Your task to perform on an android device: Go to eBay Image 0: 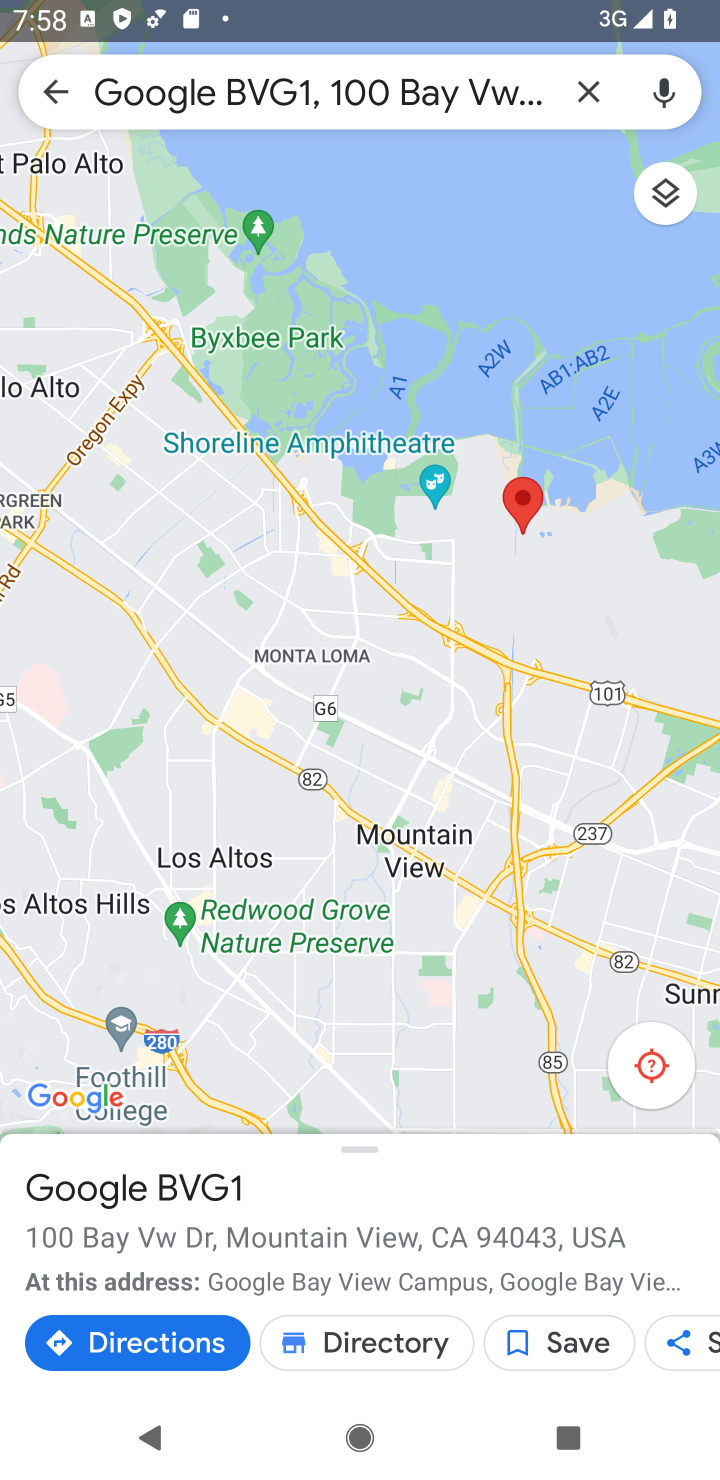
Step 0: press home button
Your task to perform on an android device: Go to eBay Image 1: 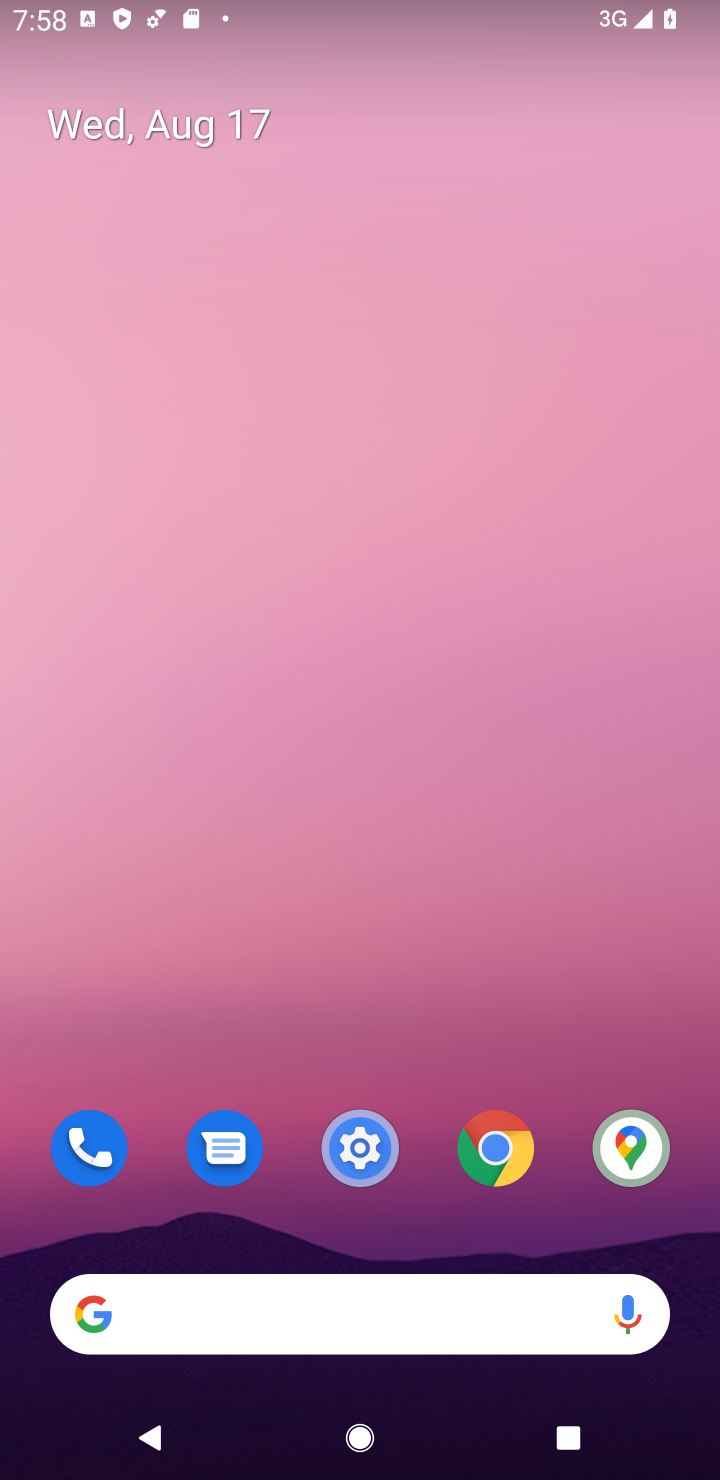
Step 1: click (495, 1150)
Your task to perform on an android device: Go to eBay Image 2: 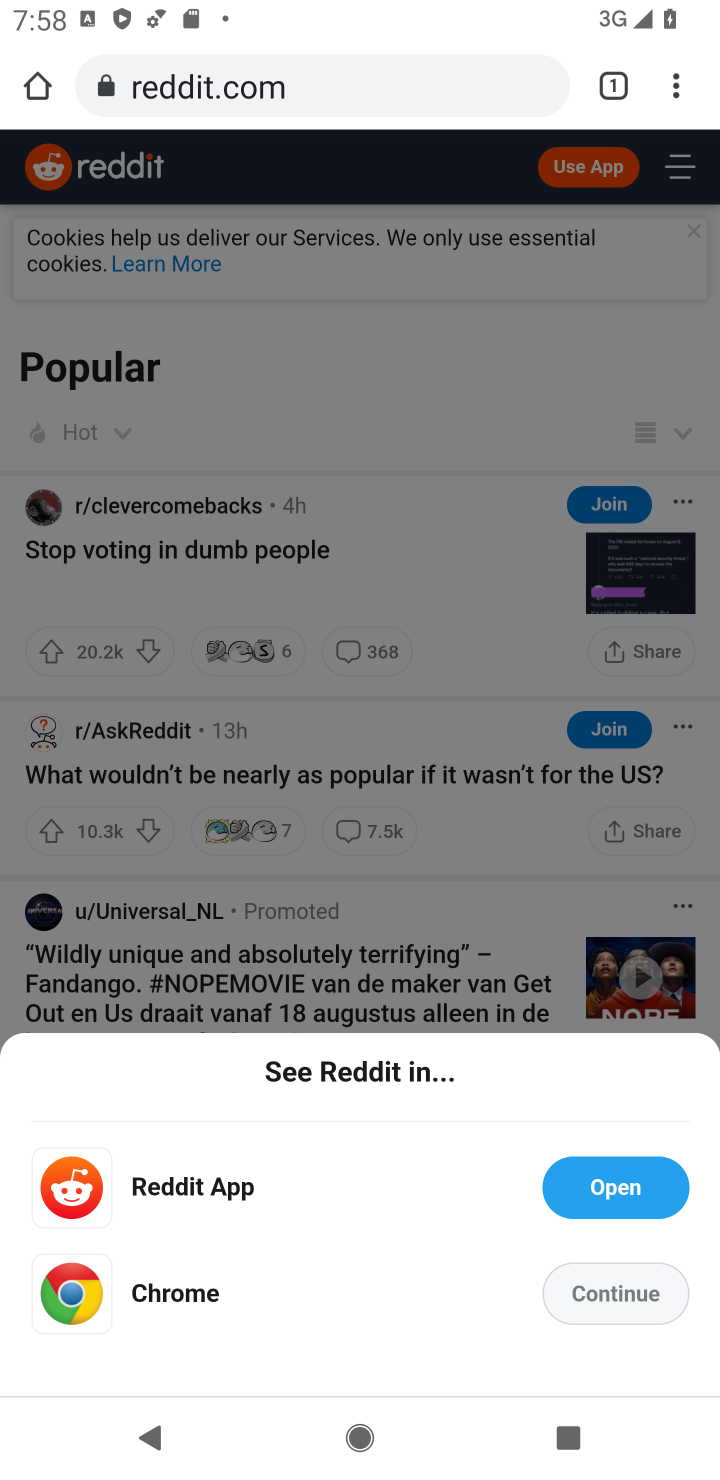
Step 2: click (379, 96)
Your task to perform on an android device: Go to eBay Image 3: 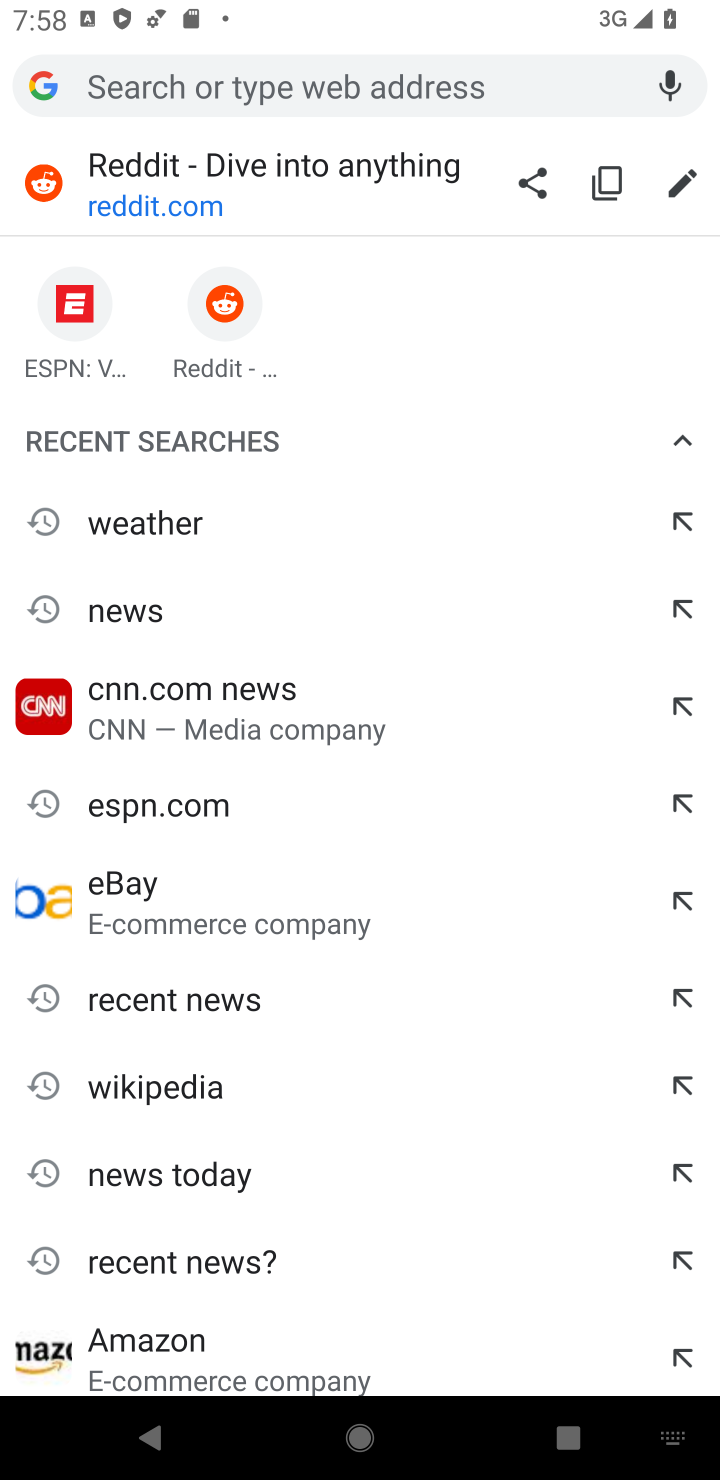
Step 3: type "ebay"
Your task to perform on an android device: Go to eBay Image 4: 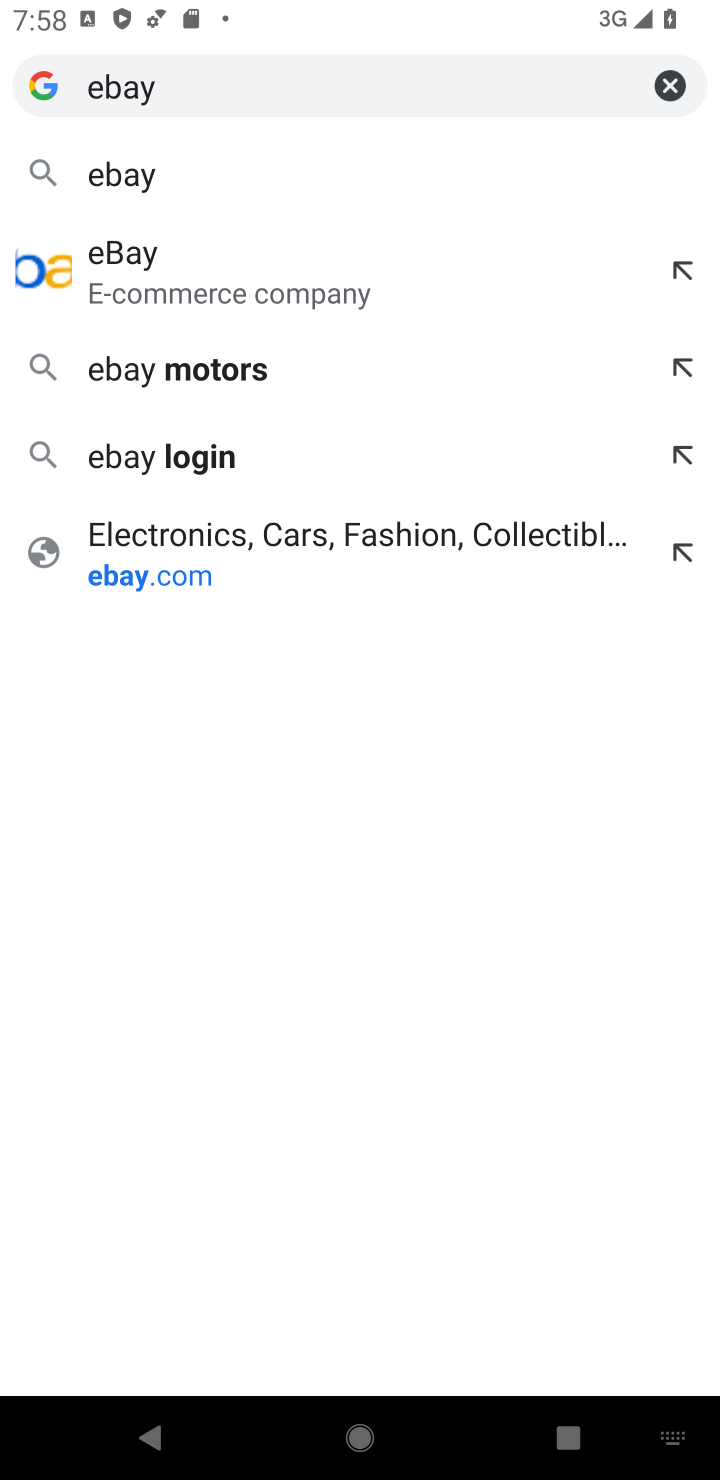
Step 4: click (122, 161)
Your task to perform on an android device: Go to eBay Image 5: 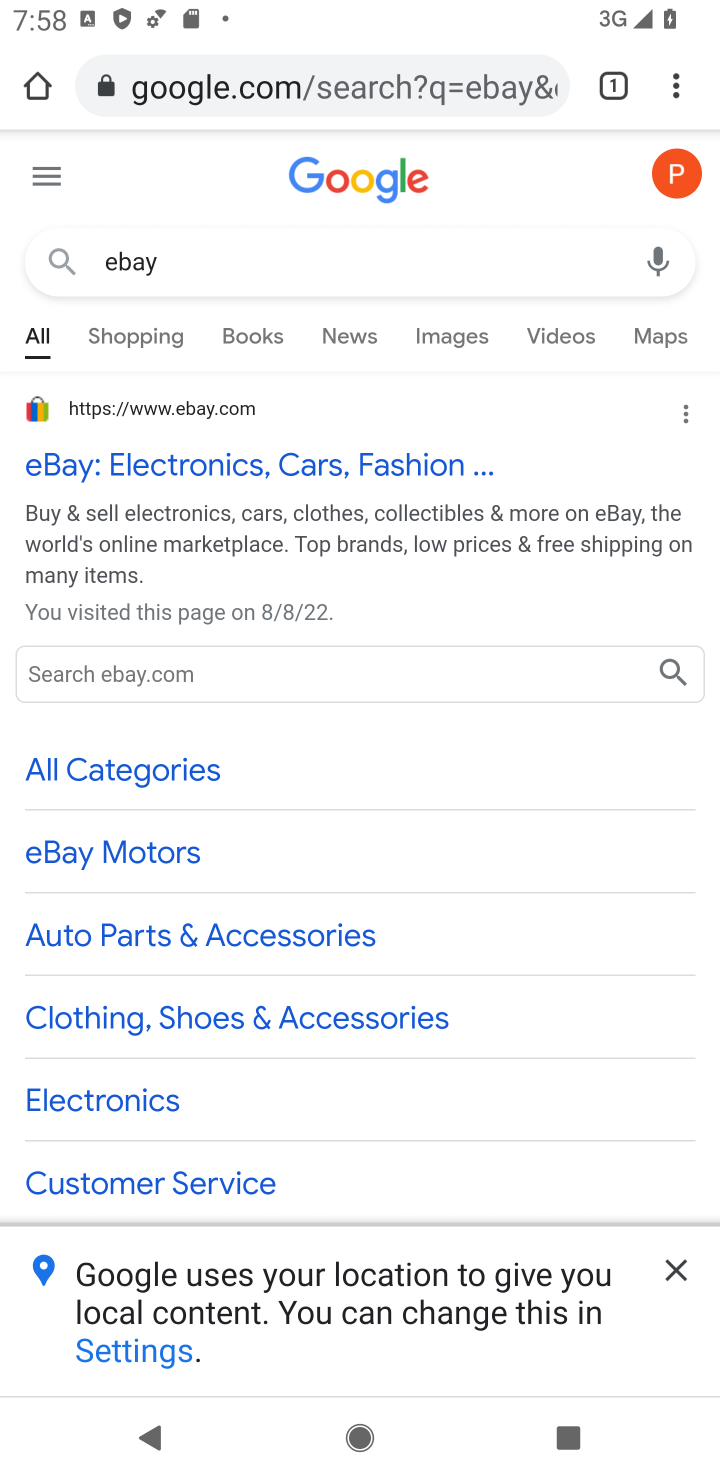
Step 5: click (213, 461)
Your task to perform on an android device: Go to eBay Image 6: 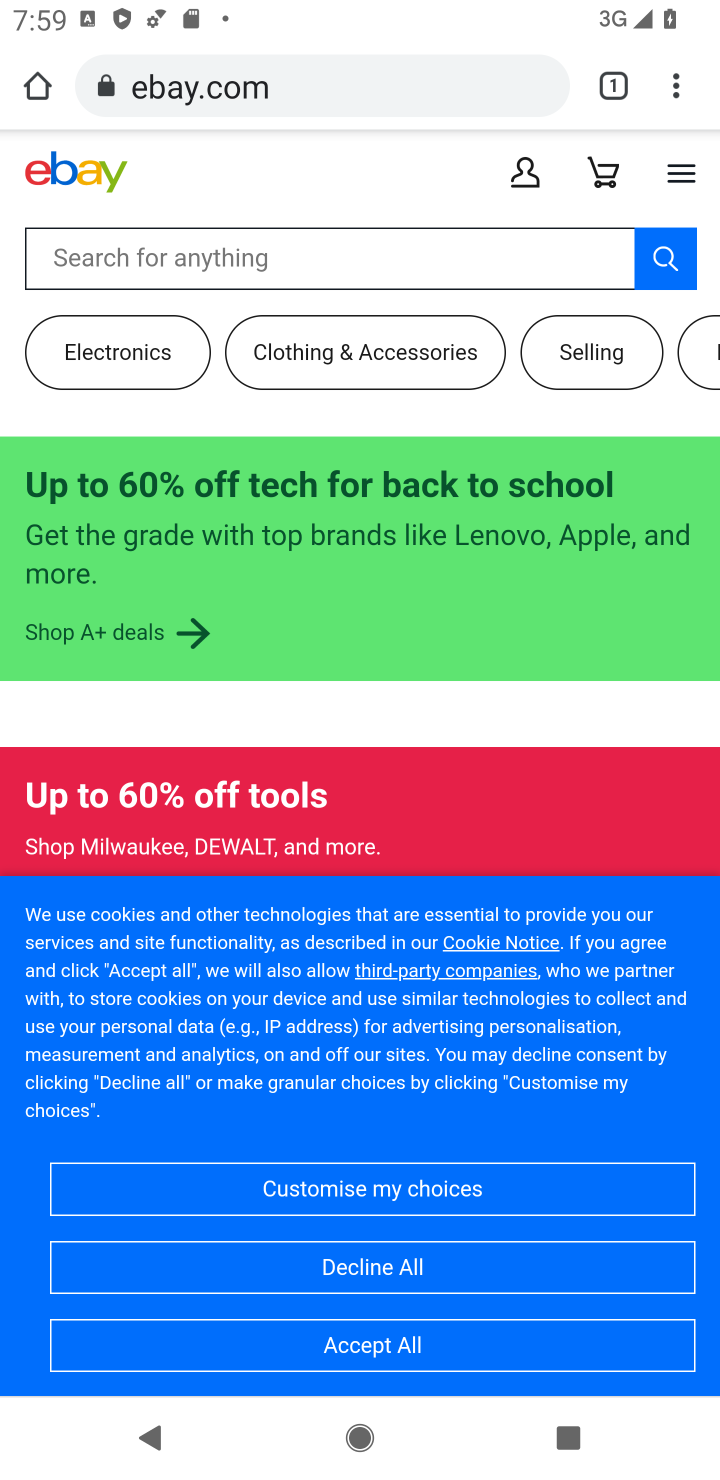
Step 6: click (382, 1349)
Your task to perform on an android device: Go to eBay Image 7: 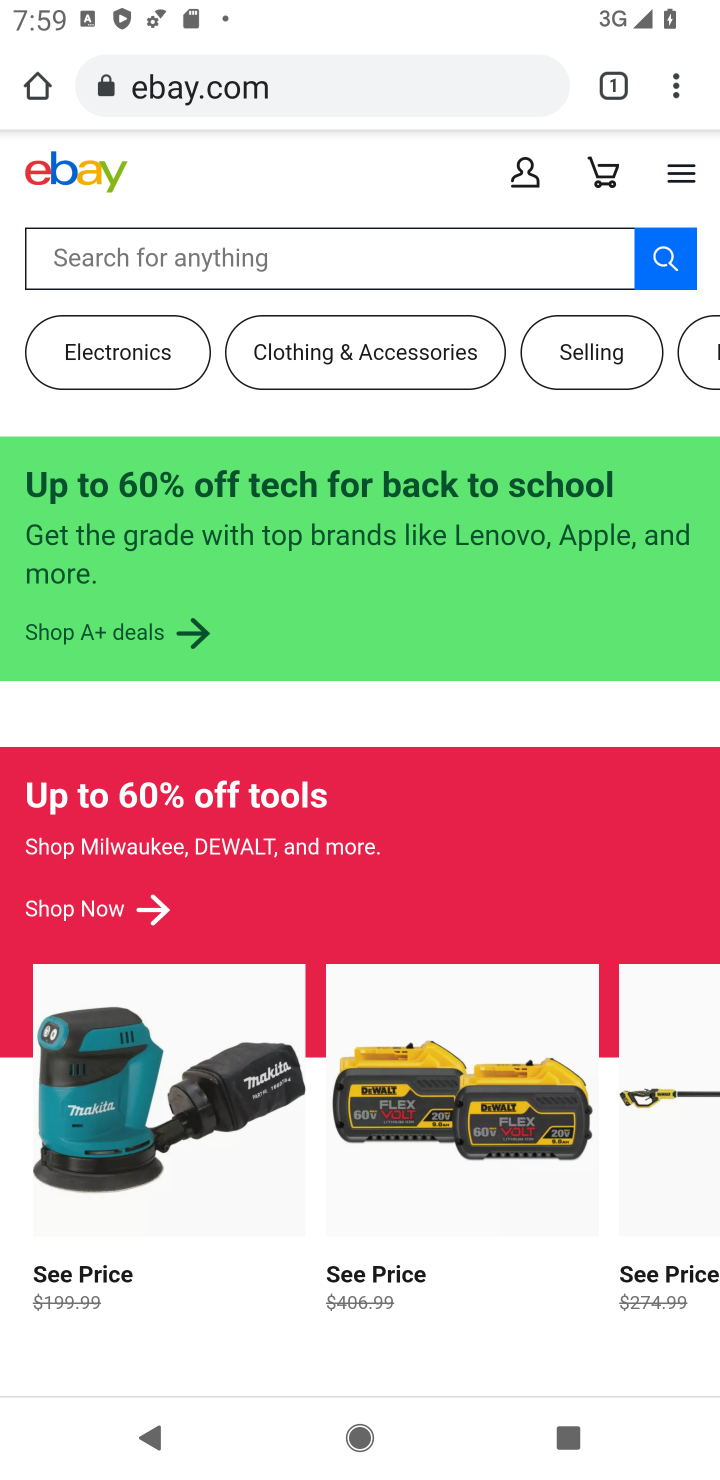
Step 7: task complete